Your task to perform on an android device: Search for seafood restaurants on Google Maps Image 0: 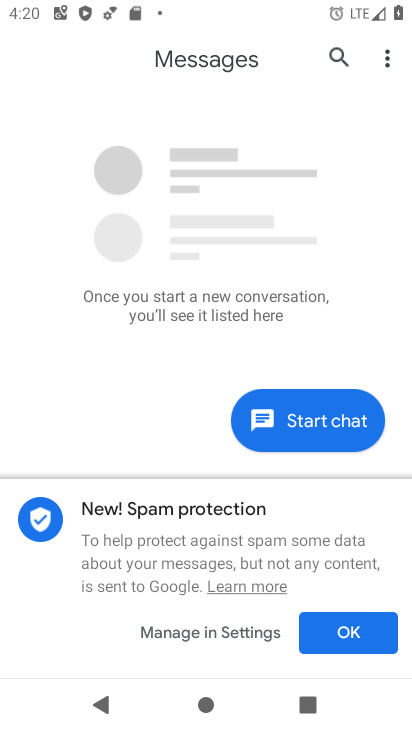
Step 0: press home button
Your task to perform on an android device: Search for seafood restaurants on Google Maps Image 1: 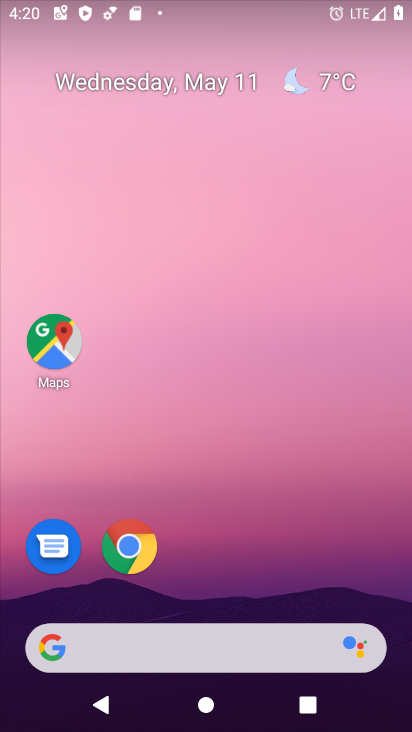
Step 1: drag from (152, 595) to (147, 42)
Your task to perform on an android device: Search for seafood restaurants on Google Maps Image 2: 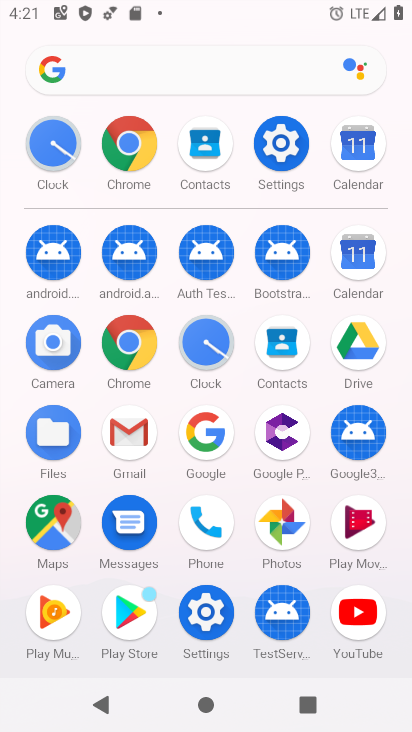
Step 2: click (56, 526)
Your task to perform on an android device: Search for seafood restaurants on Google Maps Image 3: 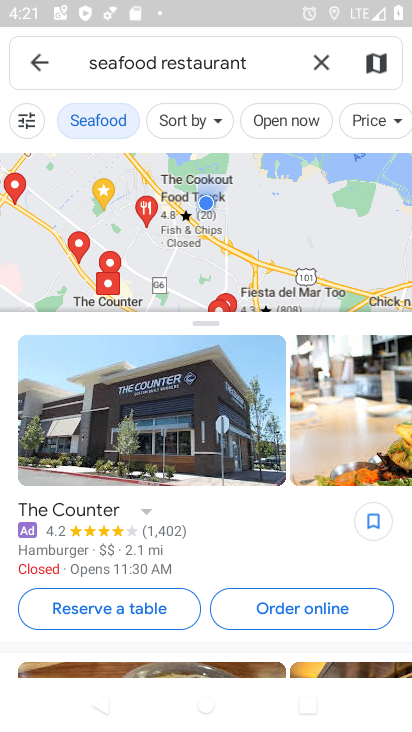
Step 3: task complete